Your task to perform on an android device: Is it going to rain this weekend? Image 0: 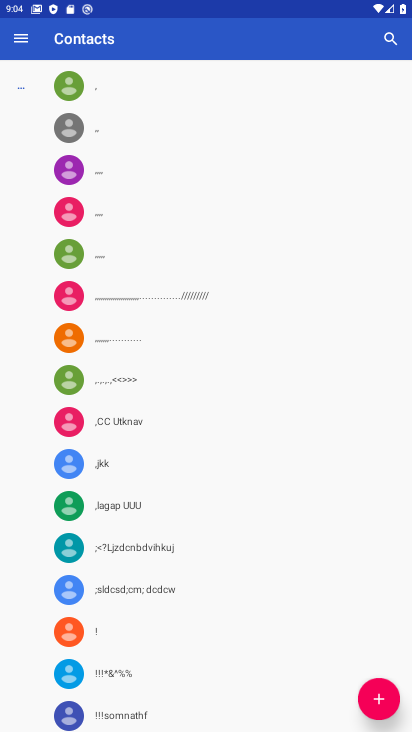
Step 0: press home button
Your task to perform on an android device: Is it going to rain this weekend? Image 1: 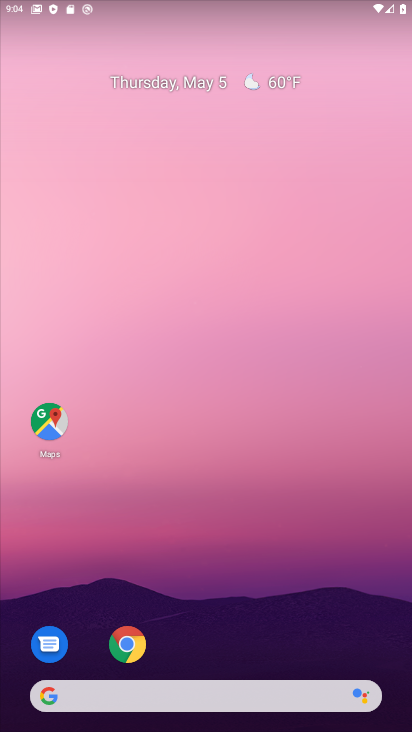
Step 1: drag from (374, 614) to (369, 119)
Your task to perform on an android device: Is it going to rain this weekend? Image 2: 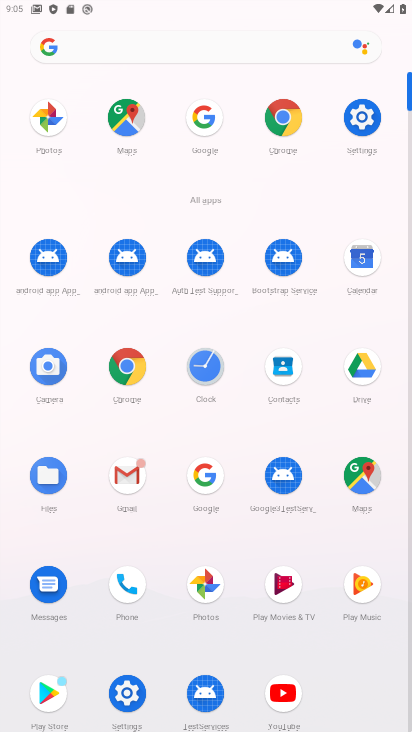
Step 2: click (133, 365)
Your task to perform on an android device: Is it going to rain this weekend? Image 3: 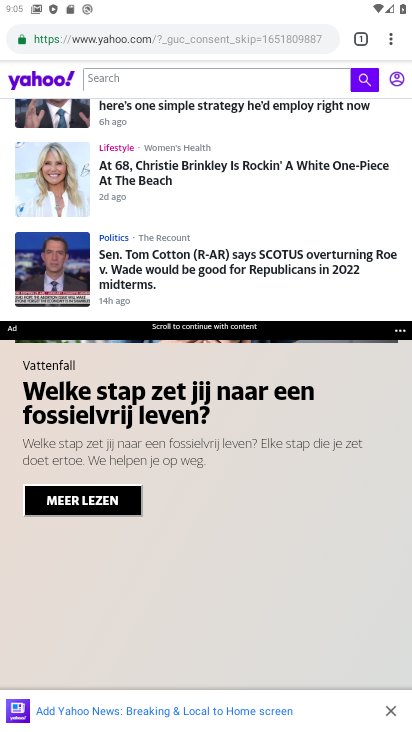
Step 3: click (159, 32)
Your task to perform on an android device: Is it going to rain this weekend? Image 4: 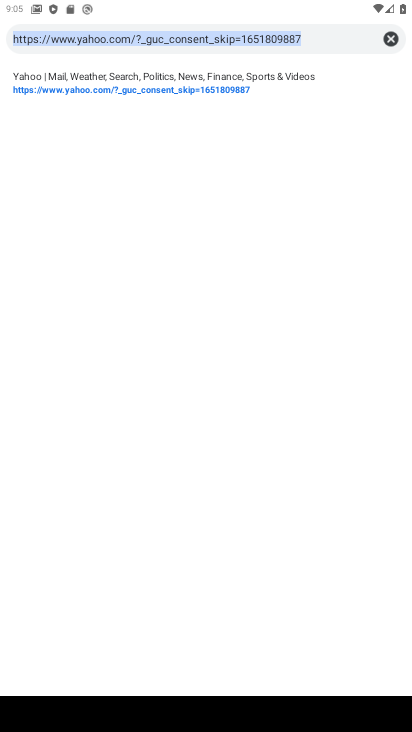
Step 4: click (396, 35)
Your task to perform on an android device: Is it going to rain this weekend? Image 5: 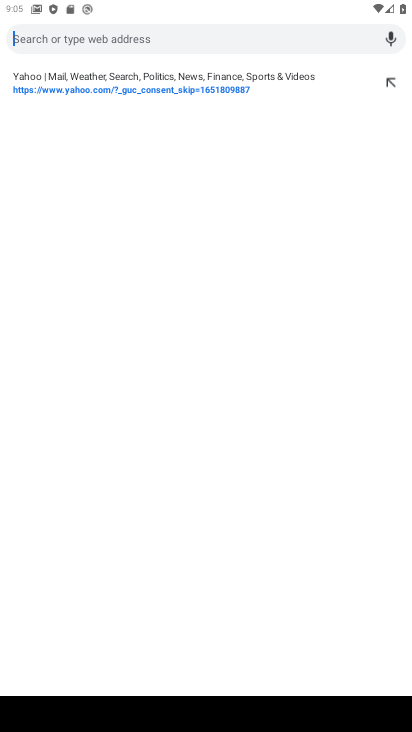
Step 5: type "is it going to rain this weekend"
Your task to perform on an android device: Is it going to rain this weekend? Image 6: 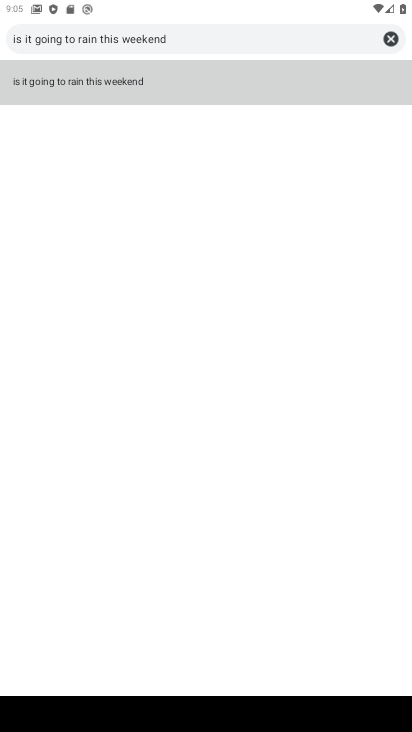
Step 6: click (71, 83)
Your task to perform on an android device: Is it going to rain this weekend? Image 7: 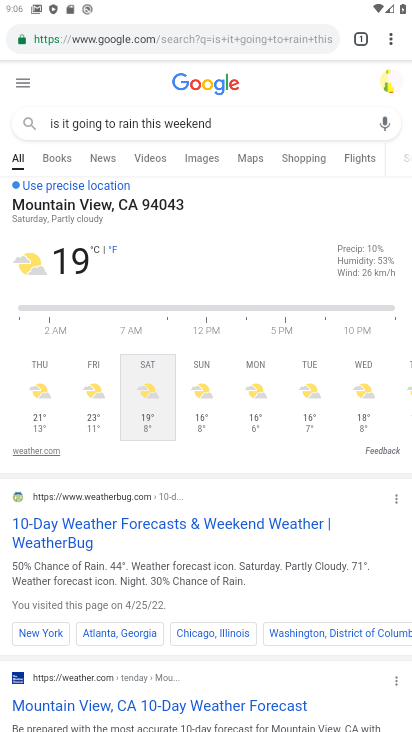
Step 7: task complete